Your task to perform on an android device: see sites visited before in the chrome app Image 0: 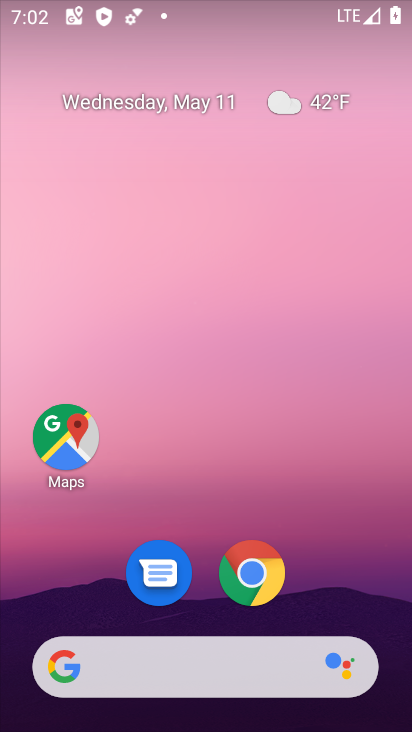
Step 0: click (299, 221)
Your task to perform on an android device: see sites visited before in the chrome app Image 1: 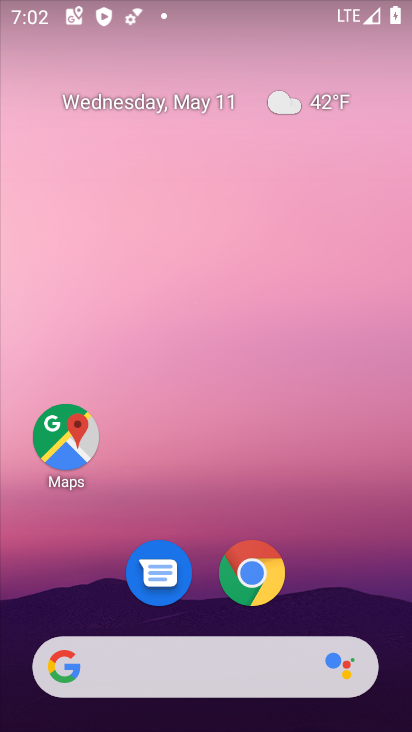
Step 1: click (251, 574)
Your task to perform on an android device: see sites visited before in the chrome app Image 2: 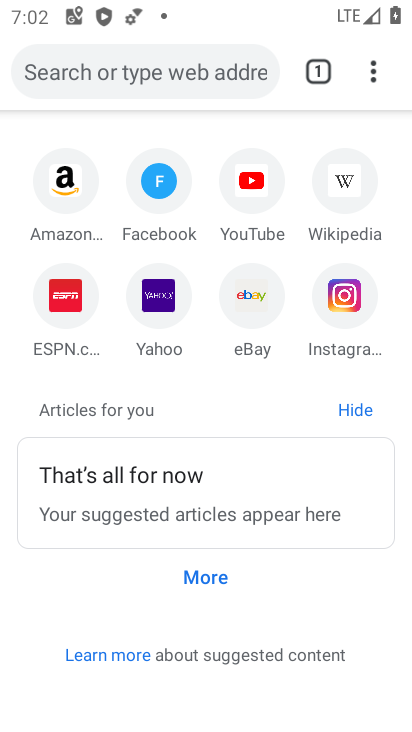
Step 2: click (372, 70)
Your task to perform on an android device: see sites visited before in the chrome app Image 3: 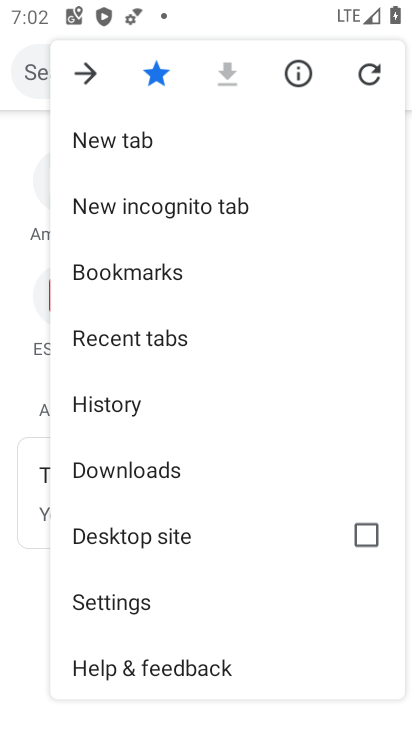
Step 3: click (126, 401)
Your task to perform on an android device: see sites visited before in the chrome app Image 4: 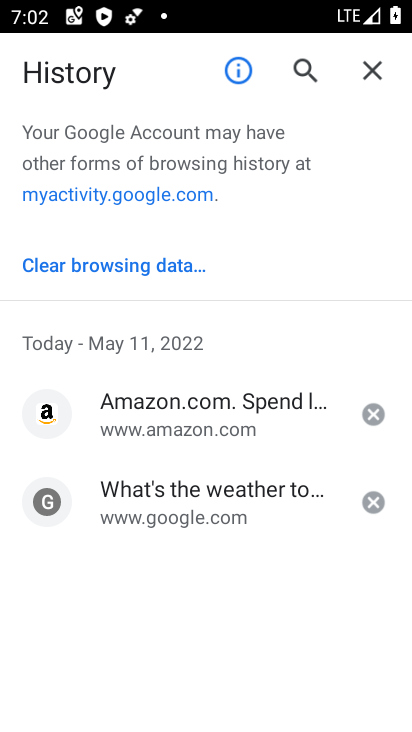
Step 4: task complete